Your task to perform on an android device: Go to Wikipedia Image 0: 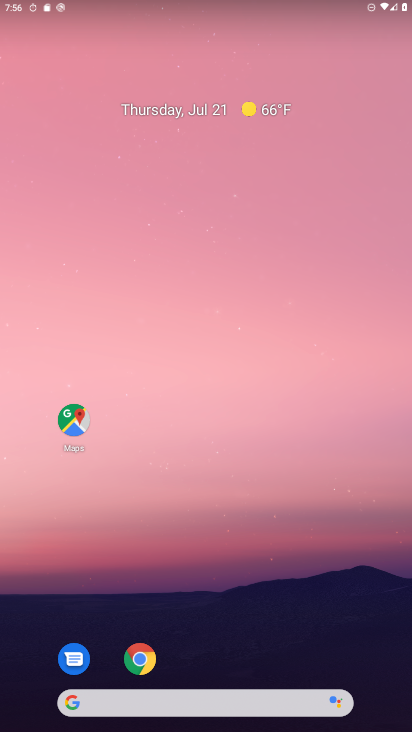
Step 0: drag from (187, 655) to (254, 174)
Your task to perform on an android device: Go to Wikipedia Image 1: 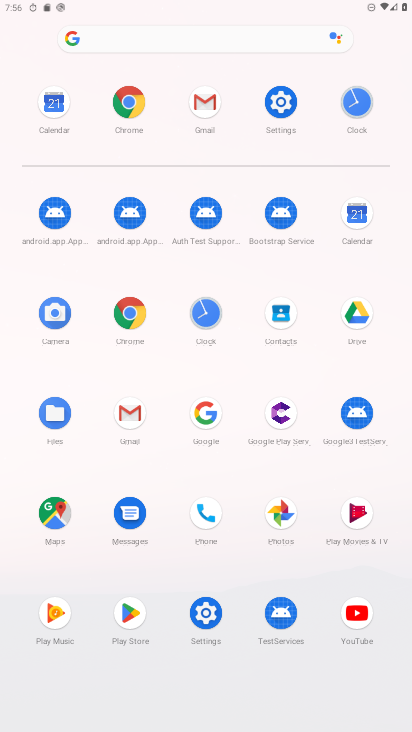
Step 1: click (135, 35)
Your task to perform on an android device: Go to Wikipedia Image 2: 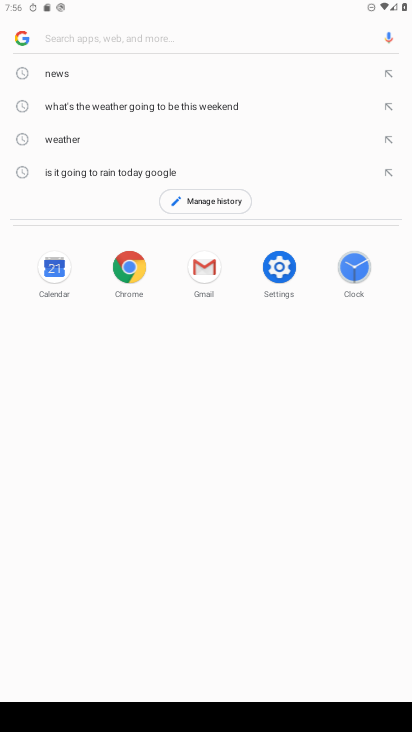
Step 2: type "Wikipedia"
Your task to perform on an android device: Go to Wikipedia Image 3: 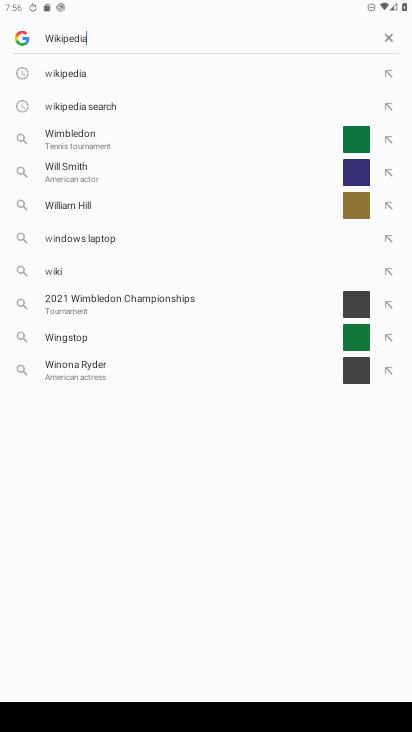
Step 3: type ""
Your task to perform on an android device: Go to Wikipedia Image 4: 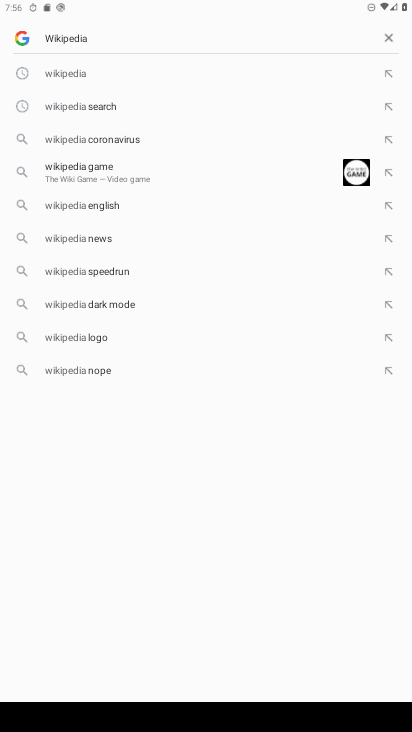
Step 4: click (84, 71)
Your task to perform on an android device: Go to Wikipedia Image 5: 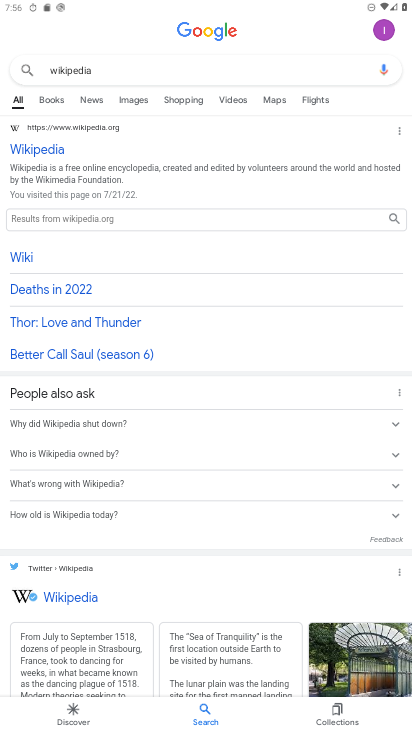
Step 5: click (43, 153)
Your task to perform on an android device: Go to Wikipedia Image 6: 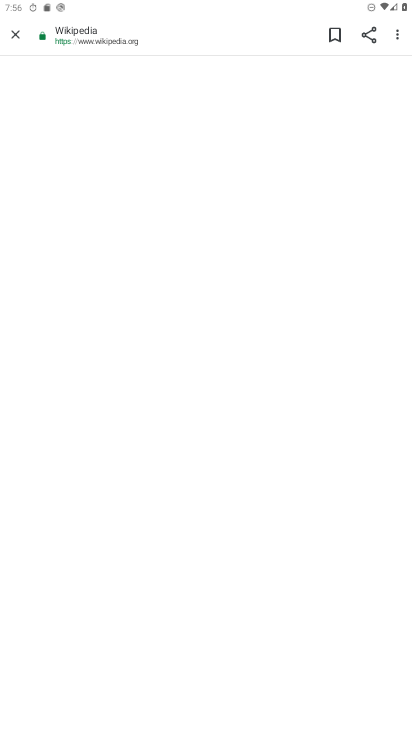
Step 6: task complete